Your task to perform on an android device: Open the downloads Image 0: 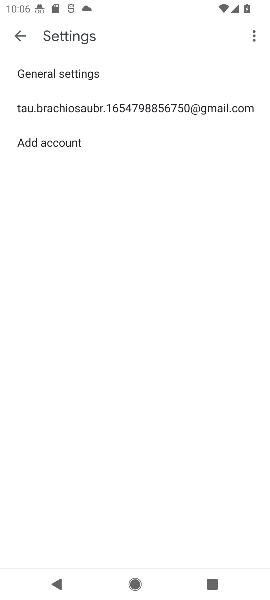
Step 0: press home button
Your task to perform on an android device: Open the downloads Image 1: 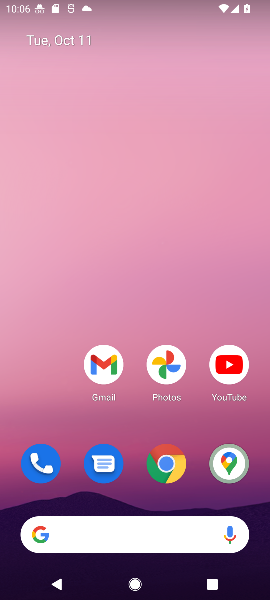
Step 1: drag from (101, 480) to (112, 94)
Your task to perform on an android device: Open the downloads Image 2: 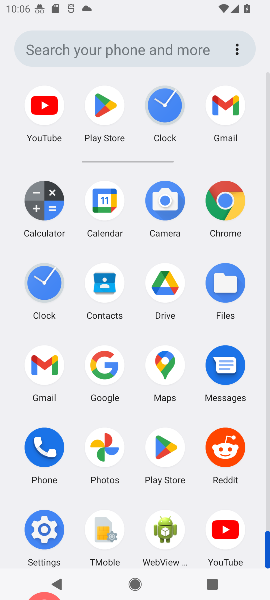
Step 2: click (39, 526)
Your task to perform on an android device: Open the downloads Image 3: 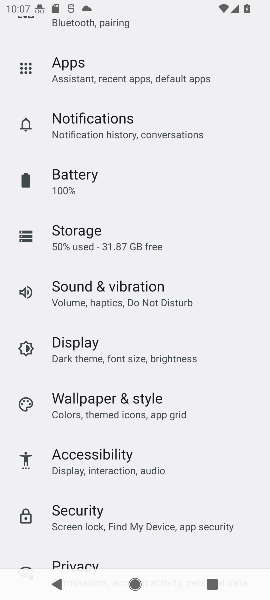
Step 3: drag from (114, 514) to (150, 153)
Your task to perform on an android device: Open the downloads Image 4: 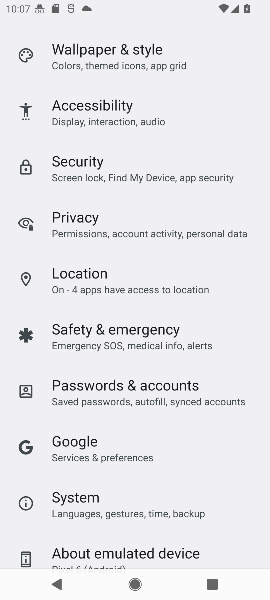
Step 4: drag from (119, 470) to (129, 90)
Your task to perform on an android device: Open the downloads Image 5: 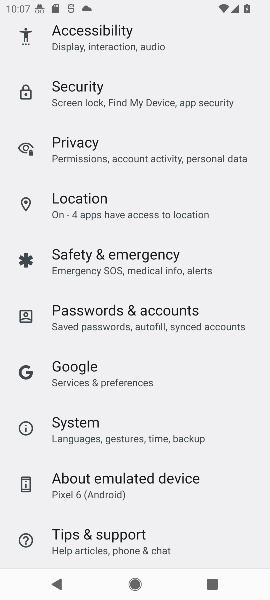
Step 5: drag from (124, 448) to (137, 123)
Your task to perform on an android device: Open the downloads Image 6: 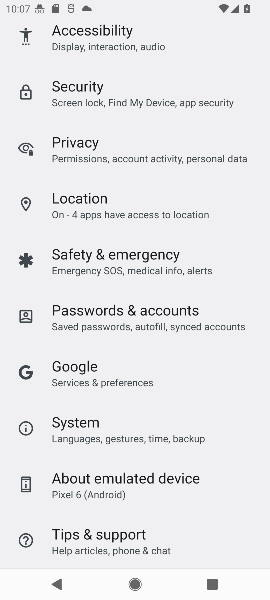
Step 6: drag from (75, 48) to (68, 481)
Your task to perform on an android device: Open the downloads Image 7: 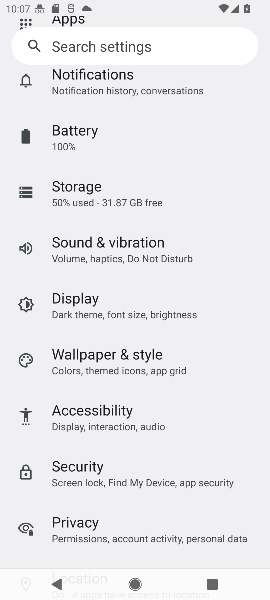
Step 7: drag from (119, 111) to (103, 476)
Your task to perform on an android device: Open the downloads Image 8: 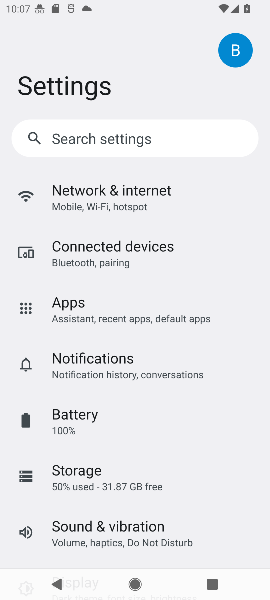
Step 8: drag from (115, 108) to (121, 441)
Your task to perform on an android device: Open the downloads Image 9: 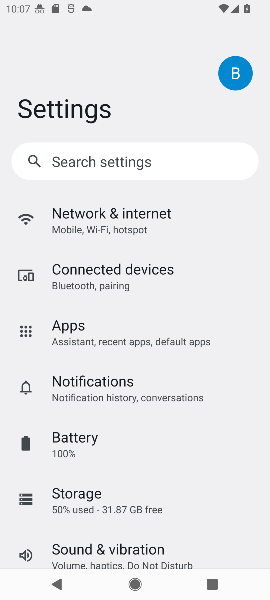
Step 9: press back button
Your task to perform on an android device: Open the downloads Image 10: 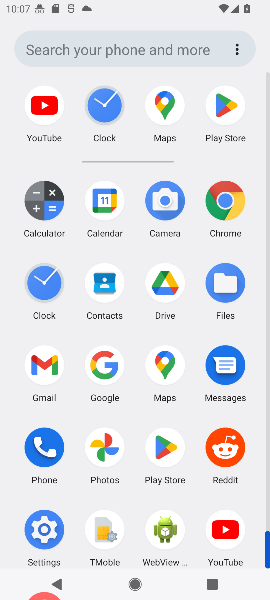
Step 10: click (42, 532)
Your task to perform on an android device: Open the downloads Image 11: 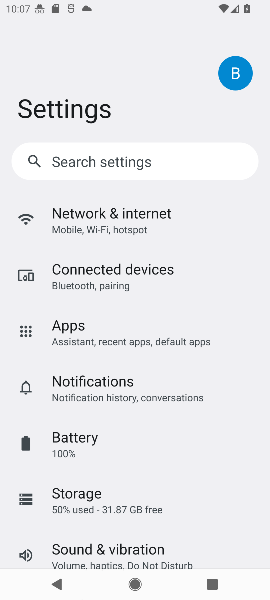
Step 11: task complete